Your task to perform on an android device: Open Reddit.com Image 0: 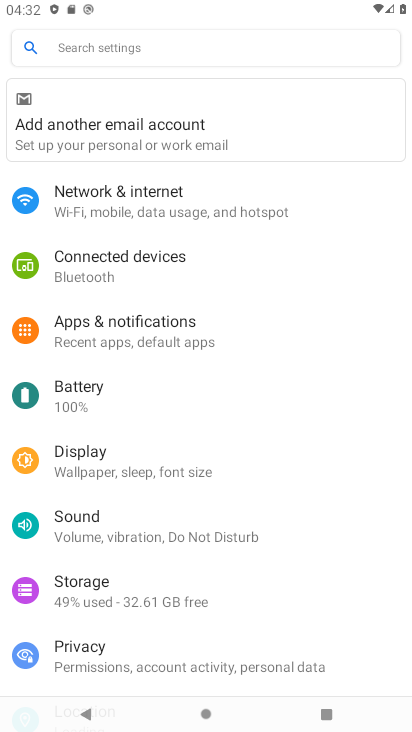
Step 0: press back button
Your task to perform on an android device: Open Reddit.com Image 1: 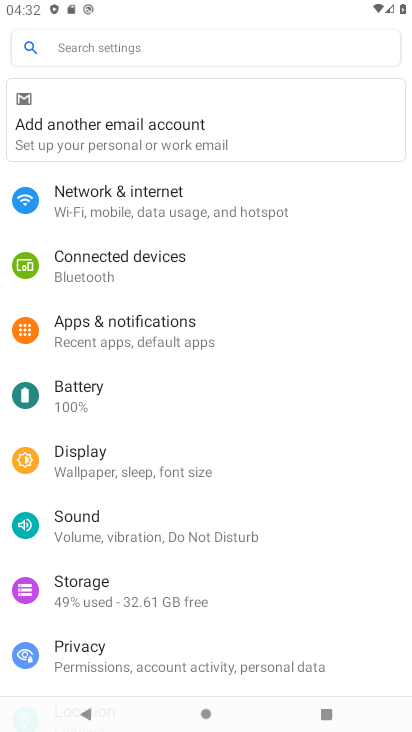
Step 1: press back button
Your task to perform on an android device: Open Reddit.com Image 2: 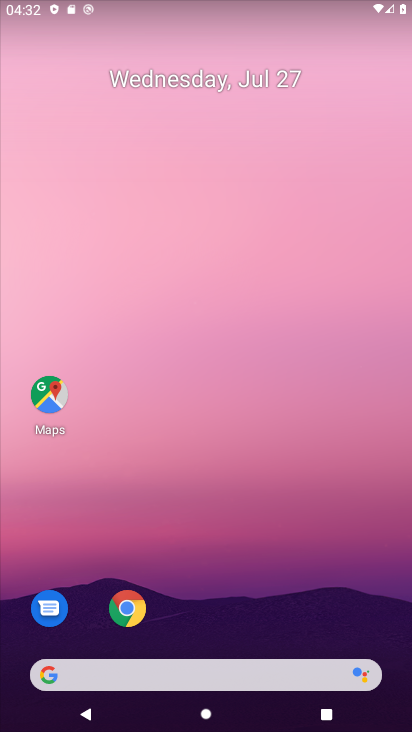
Step 2: drag from (247, 594) to (201, 16)
Your task to perform on an android device: Open Reddit.com Image 3: 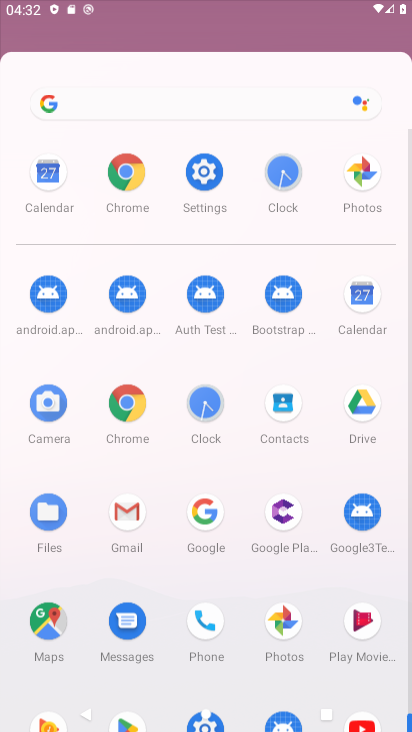
Step 3: drag from (250, 448) to (233, 74)
Your task to perform on an android device: Open Reddit.com Image 4: 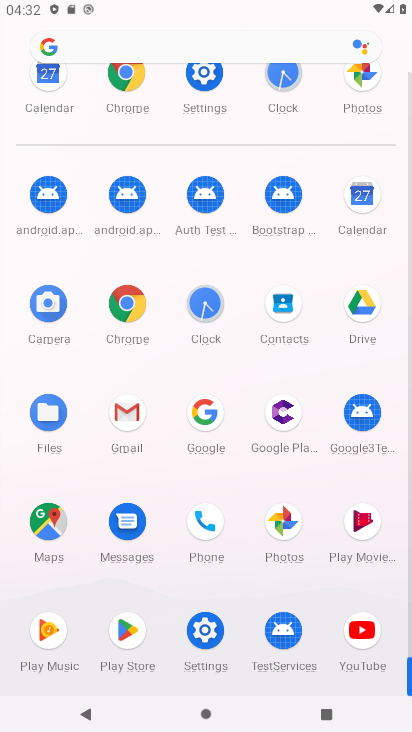
Step 4: click (130, 306)
Your task to perform on an android device: Open Reddit.com Image 5: 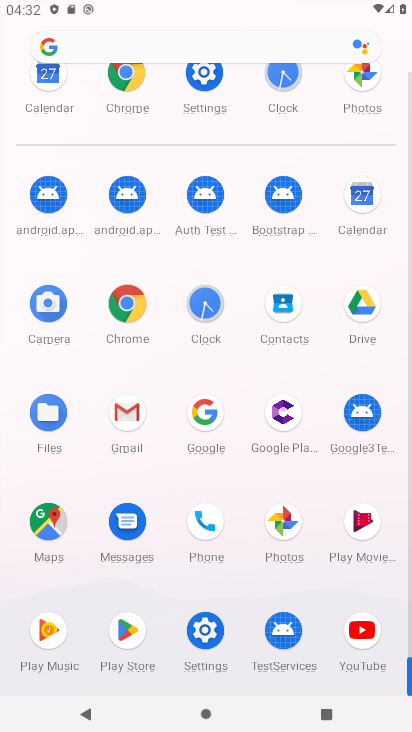
Step 5: click (130, 304)
Your task to perform on an android device: Open Reddit.com Image 6: 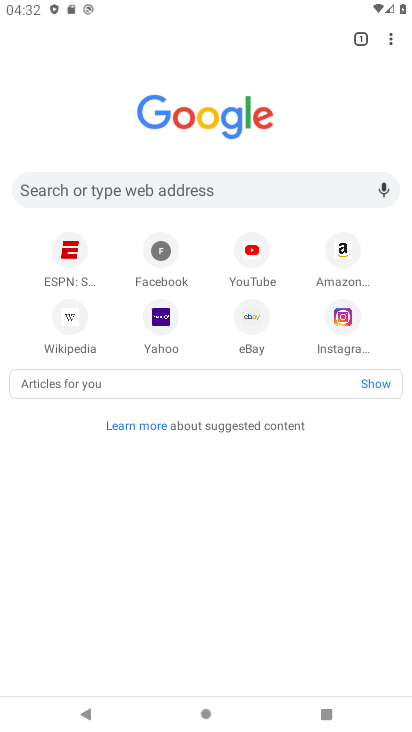
Step 6: click (66, 182)
Your task to perform on an android device: Open Reddit.com Image 7: 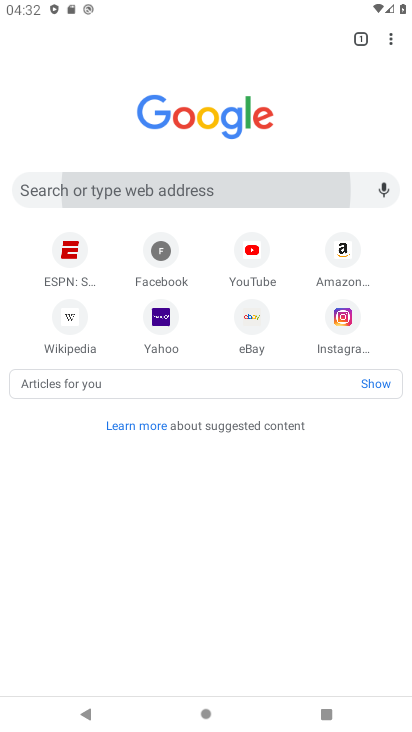
Step 7: click (66, 182)
Your task to perform on an android device: Open Reddit.com Image 8: 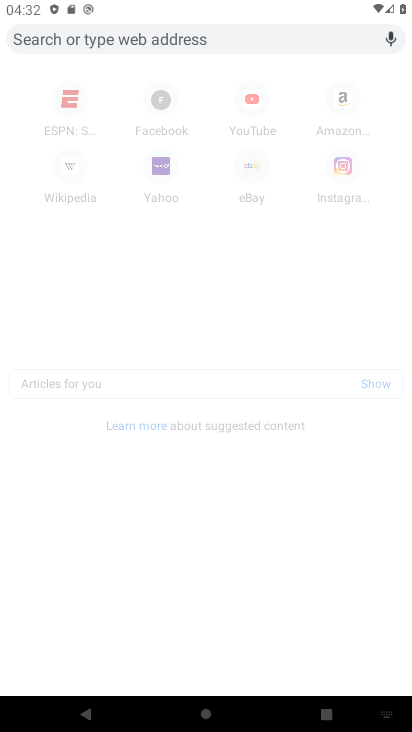
Step 8: type "reddit.com"
Your task to perform on an android device: Open Reddit.com Image 9: 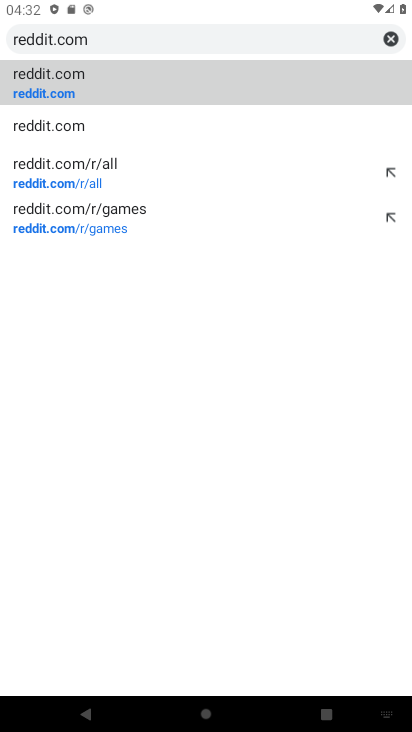
Step 9: click (67, 81)
Your task to perform on an android device: Open Reddit.com Image 10: 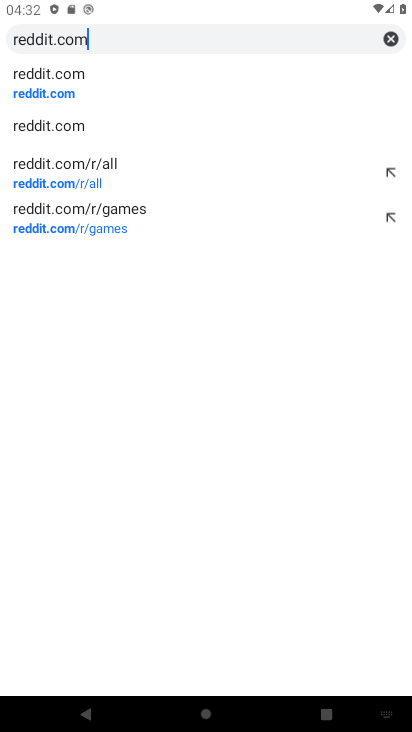
Step 10: click (65, 80)
Your task to perform on an android device: Open Reddit.com Image 11: 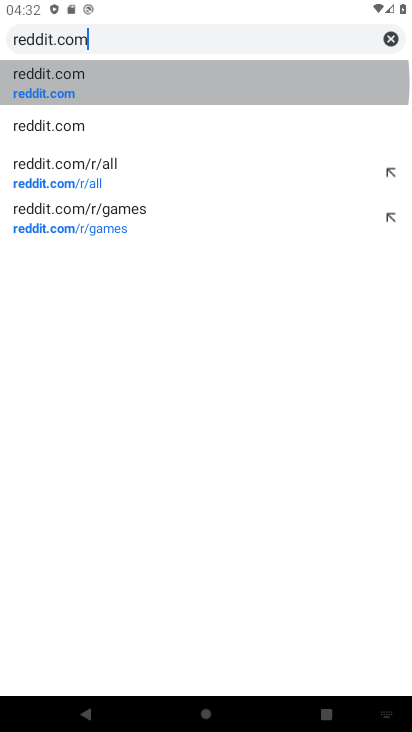
Step 11: click (65, 80)
Your task to perform on an android device: Open Reddit.com Image 12: 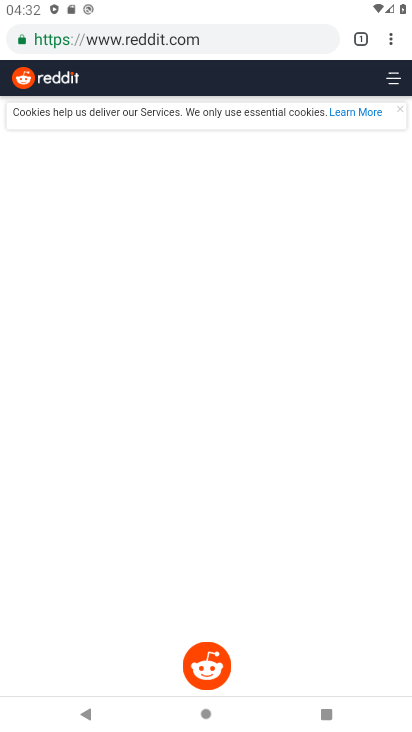
Step 12: task complete